Your task to perform on an android device: turn on notifications settings in the gmail app Image 0: 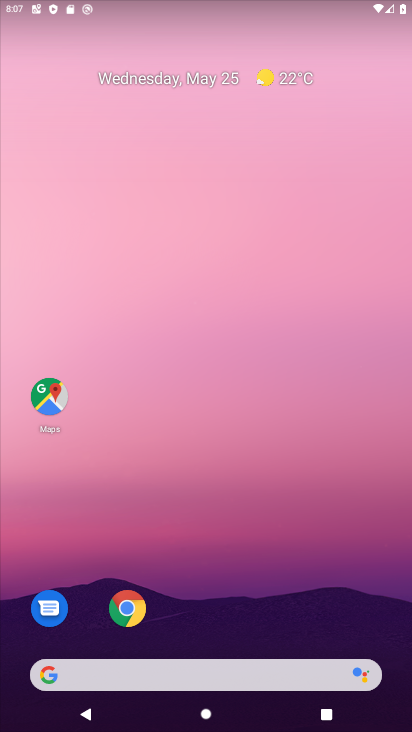
Step 0: drag from (228, 600) to (213, 192)
Your task to perform on an android device: turn on notifications settings in the gmail app Image 1: 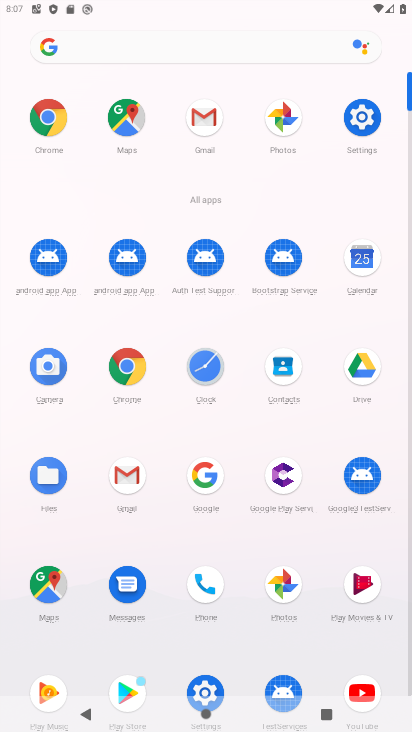
Step 1: click (203, 116)
Your task to perform on an android device: turn on notifications settings in the gmail app Image 2: 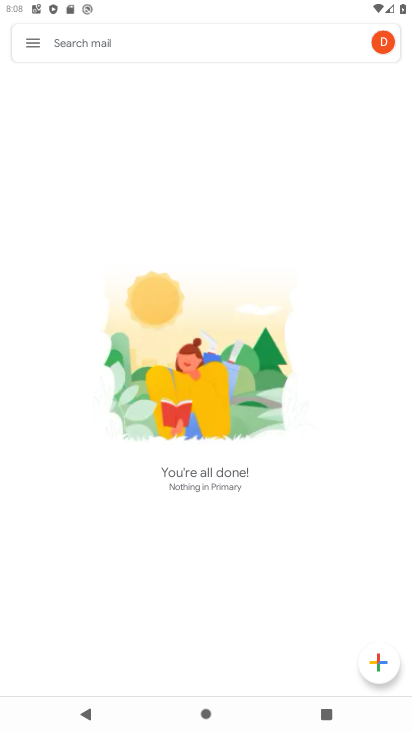
Step 2: click (34, 43)
Your task to perform on an android device: turn on notifications settings in the gmail app Image 3: 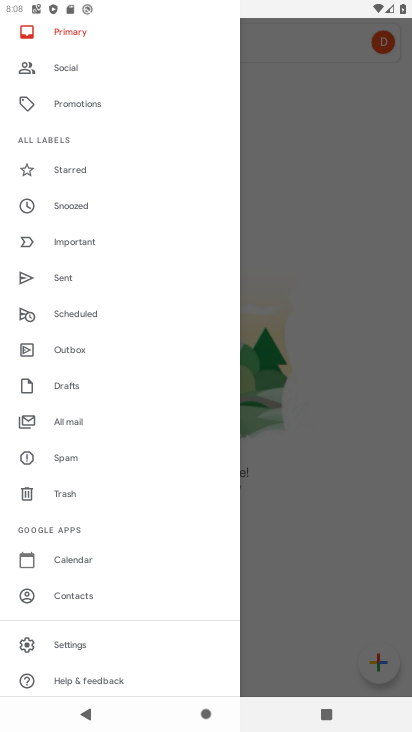
Step 3: click (71, 648)
Your task to perform on an android device: turn on notifications settings in the gmail app Image 4: 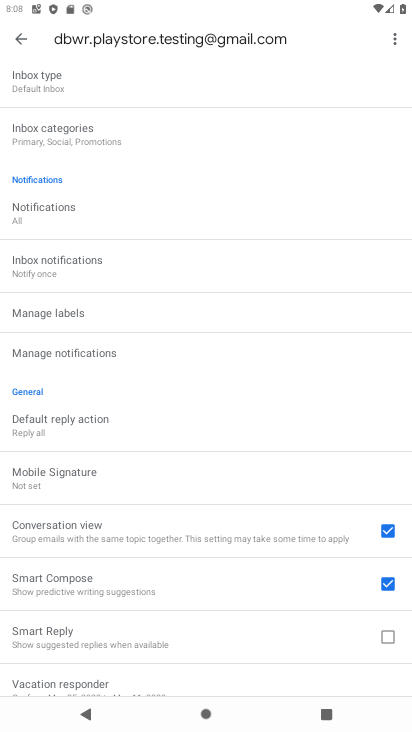
Step 4: click (101, 356)
Your task to perform on an android device: turn on notifications settings in the gmail app Image 5: 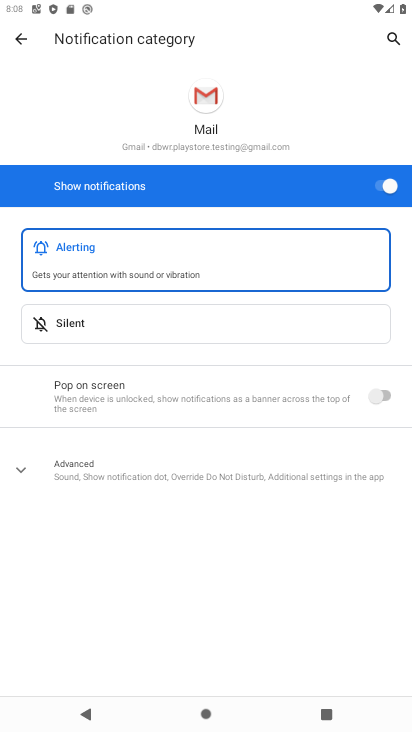
Step 5: task complete